Your task to perform on an android device: Show me productivity apps on the Play Store Image 0: 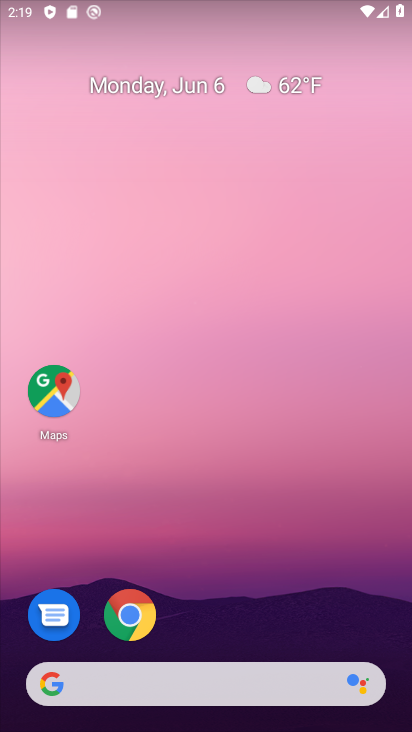
Step 0: drag from (295, 678) to (360, 20)
Your task to perform on an android device: Show me productivity apps on the Play Store Image 1: 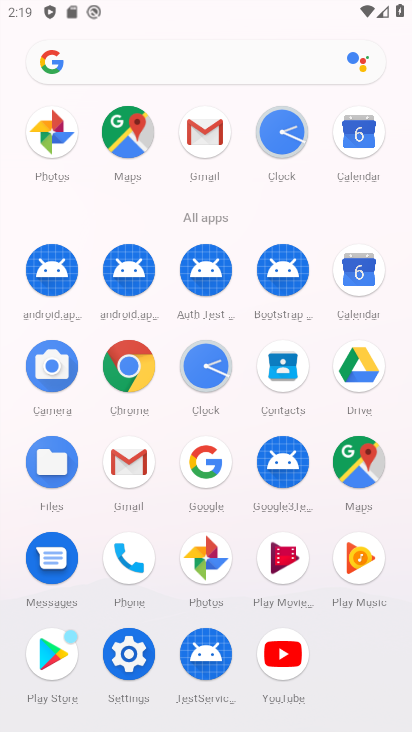
Step 1: click (62, 646)
Your task to perform on an android device: Show me productivity apps on the Play Store Image 2: 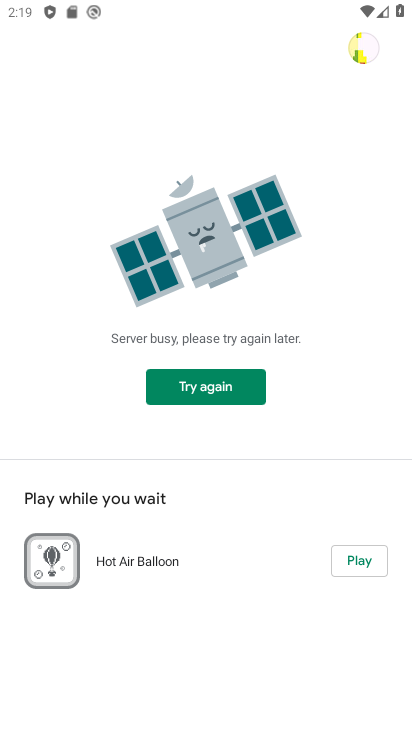
Step 2: drag from (278, 691) to (279, 377)
Your task to perform on an android device: Show me productivity apps on the Play Store Image 3: 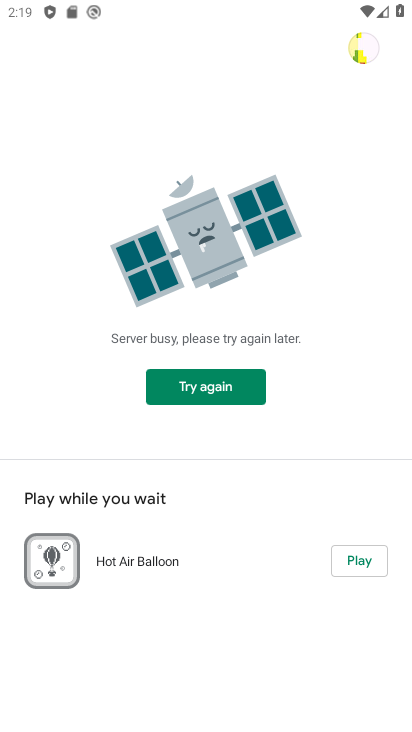
Step 3: click (184, 401)
Your task to perform on an android device: Show me productivity apps on the Play Store Image 4: 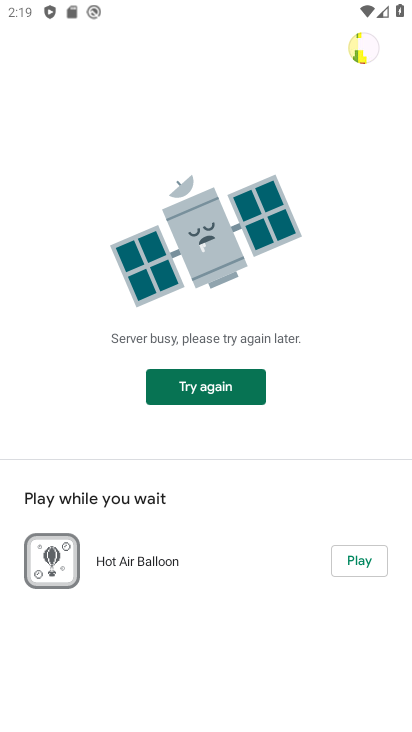
Step 4: click (187, 390)
Your task to perform on an android device: Show me productivity apps on the Play Store Image 5: 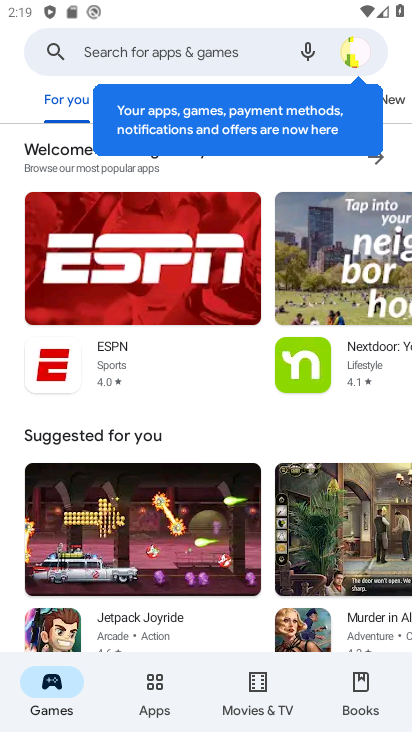
Step 5: click (150, 701)
Your task to perform on an android device: Show me productivity apps on the Play Store Image 6: 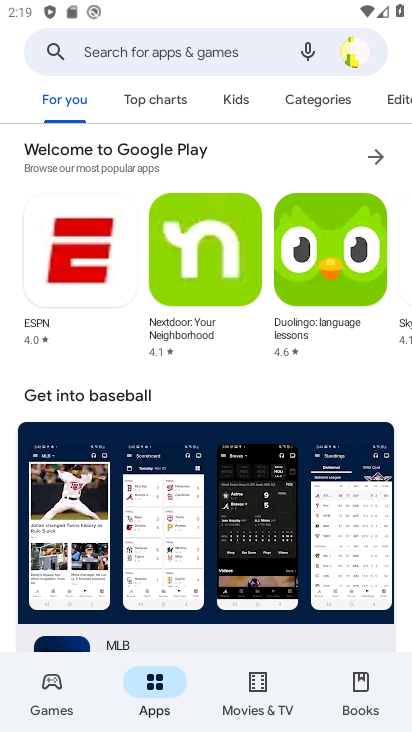
Step 6: drag from (270, 575) to (307, 66)
Your task to perform on an android device: Show me productivity apps on the Play Store Image 7: 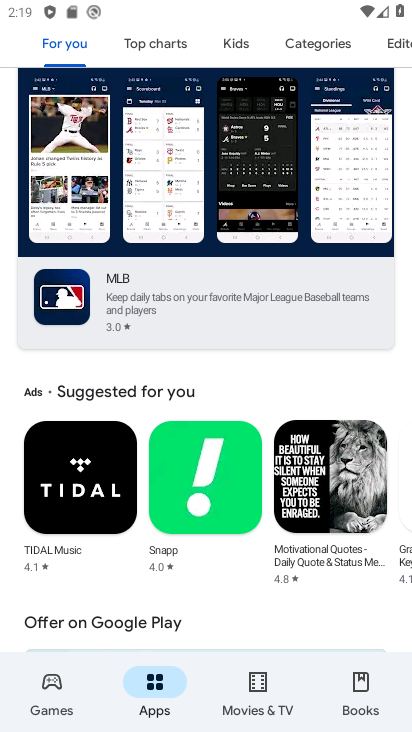
Step 7: drag from (264, 621) to (311, 180)
Your task to perform on an android device: Show me productivity apps on the Play Store Image 8: 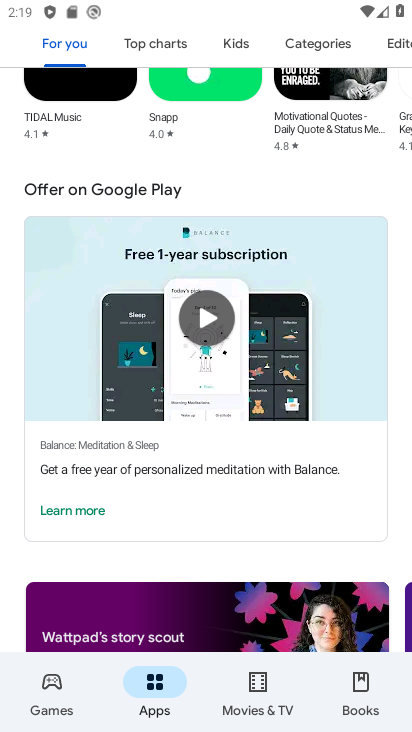
Step 8: drag from (292, 596) to (387, 84)
Your task to perform on an android device: Show me productivity apps on the Play Store Image 9: 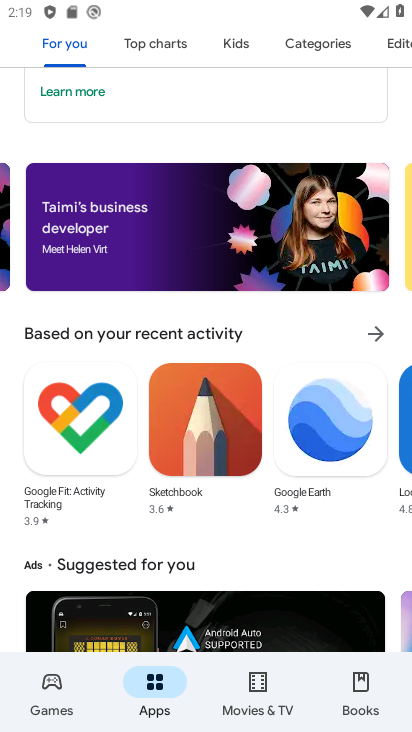
Step 9: drag from (314, 619) to (351, 119)
Your task to perform on an android device: Show me productivity apps on the Play Store Image 10: 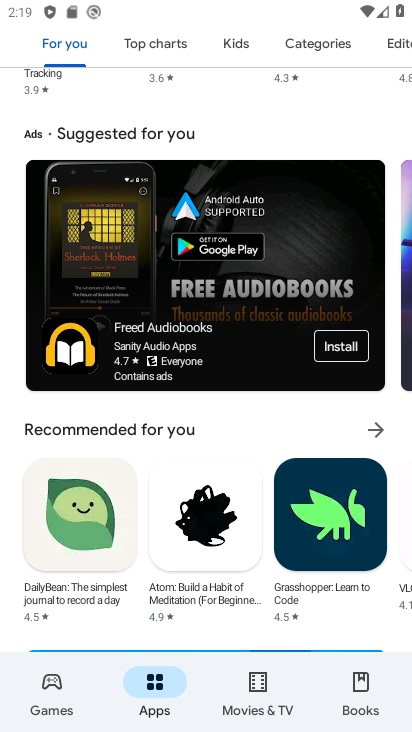
Step 10: drag from (277, 599) to (300, 120)
Your task to perform on an android device: Show me productivity apps on the Play Store Image 11: 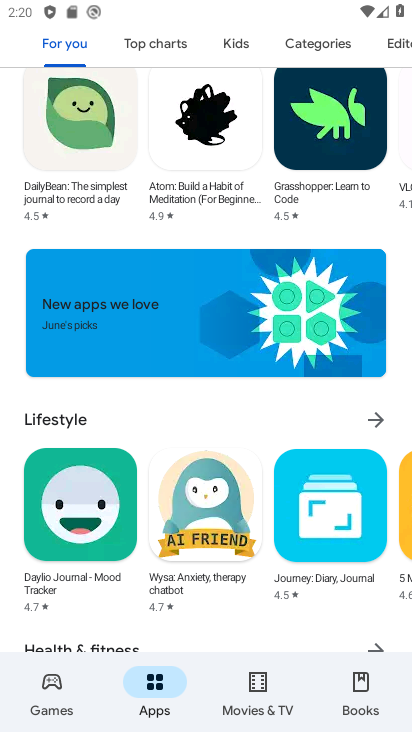
Step 11: drag from (322, 621) to (345, 112)
Your task to perform on an android device: Show me productivity apps on the Play Store Image 12: 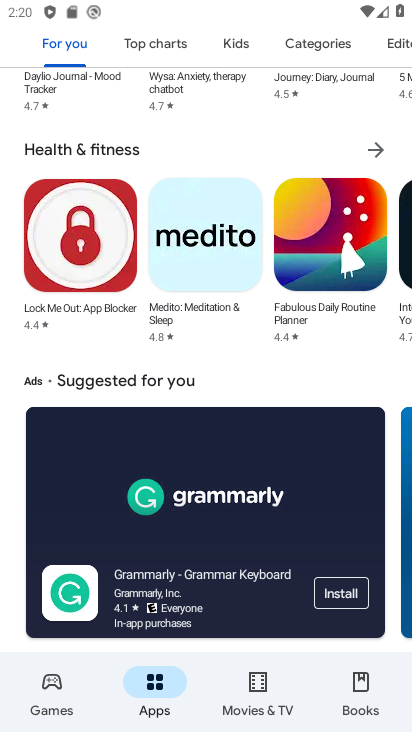
Step 12: drag from (390, 614) to (409, 215)
Your task to perform on an android device: Show me productivity apps on the Play Store Image 13: 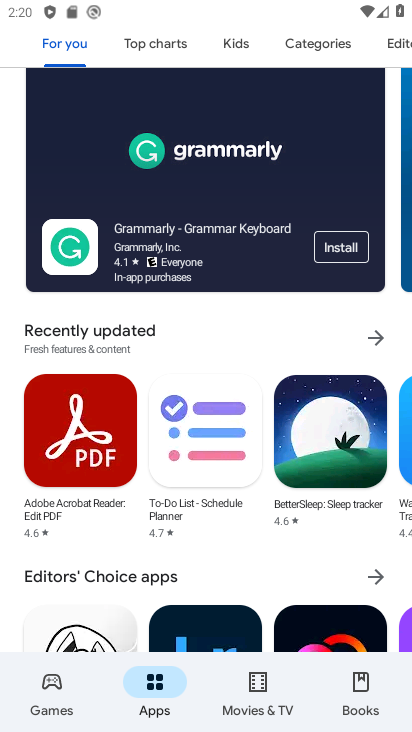
Step 13: drag from (331, 635) to (367, 196)
Your task to perform on an android device: Show me productivity apps on the Play Store Image 14: 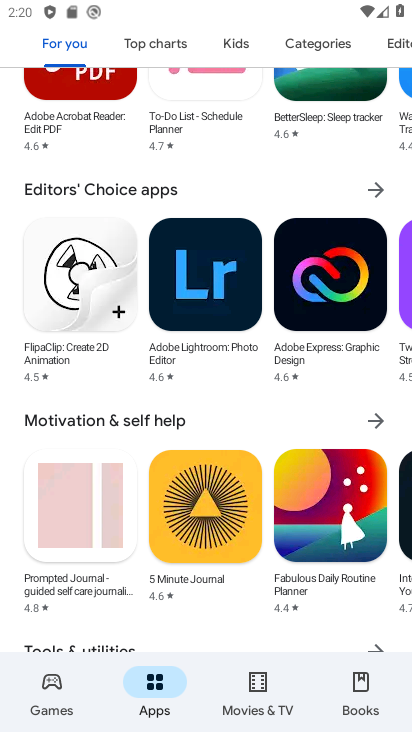
Step 14: drag from (338, 655) to (310, 193)
Your task to perform on an android device: Show me productivity apps on the Play Store Image 15: 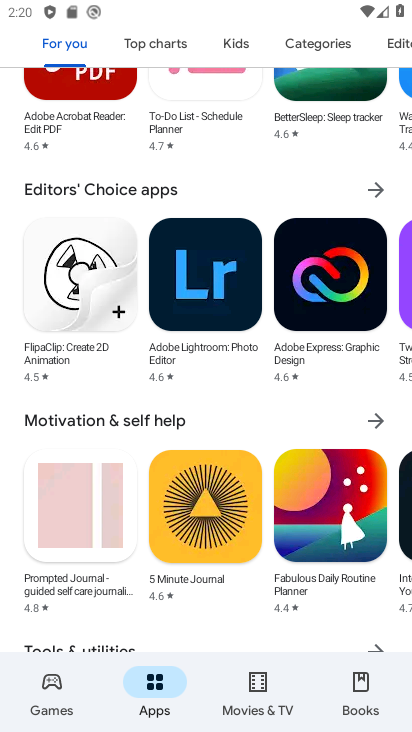
Step 15: drag from (253, 601) to (273, 40)
Your task to perform on an android device: Show me productivity apps on the Play Store Image 16: 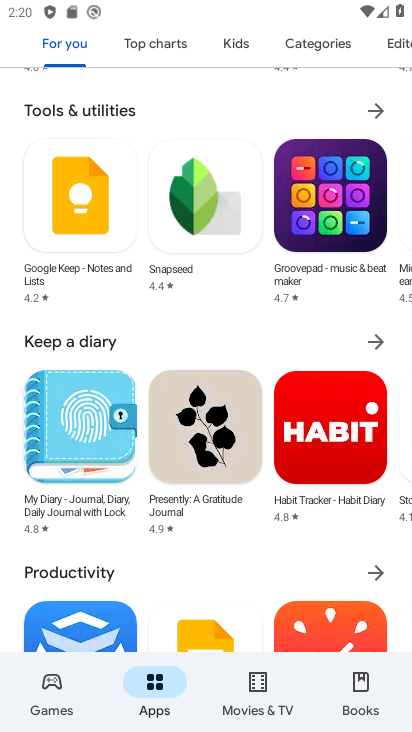
Step 16: drag from (291, 543) to (304, 310)
Your task to perform on an android device: Show me productivity apps on the Play Store Image 17: 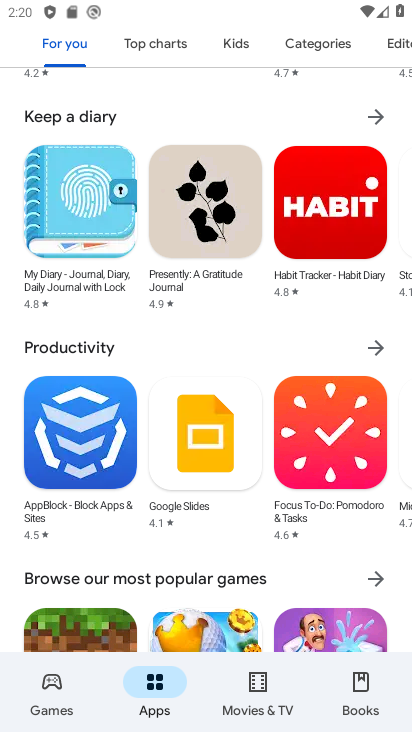
Step 17: click (387, 342)
Your task to perform on an android device: Show me productivity apps on the Play Store Image 18: 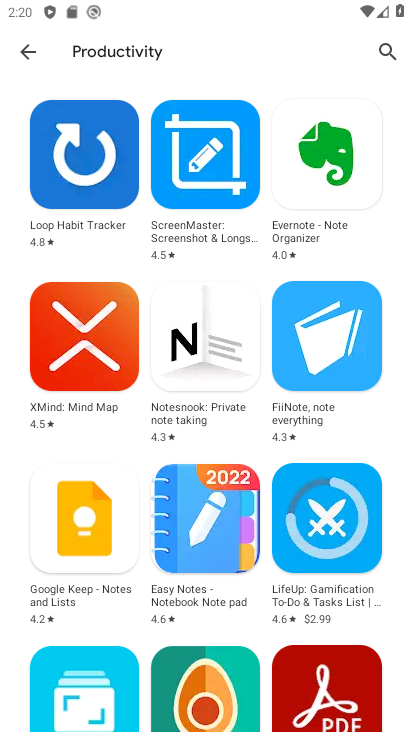
Step 18: task complete